Your task to perform on an android device: Install the Amazon app Image 0: 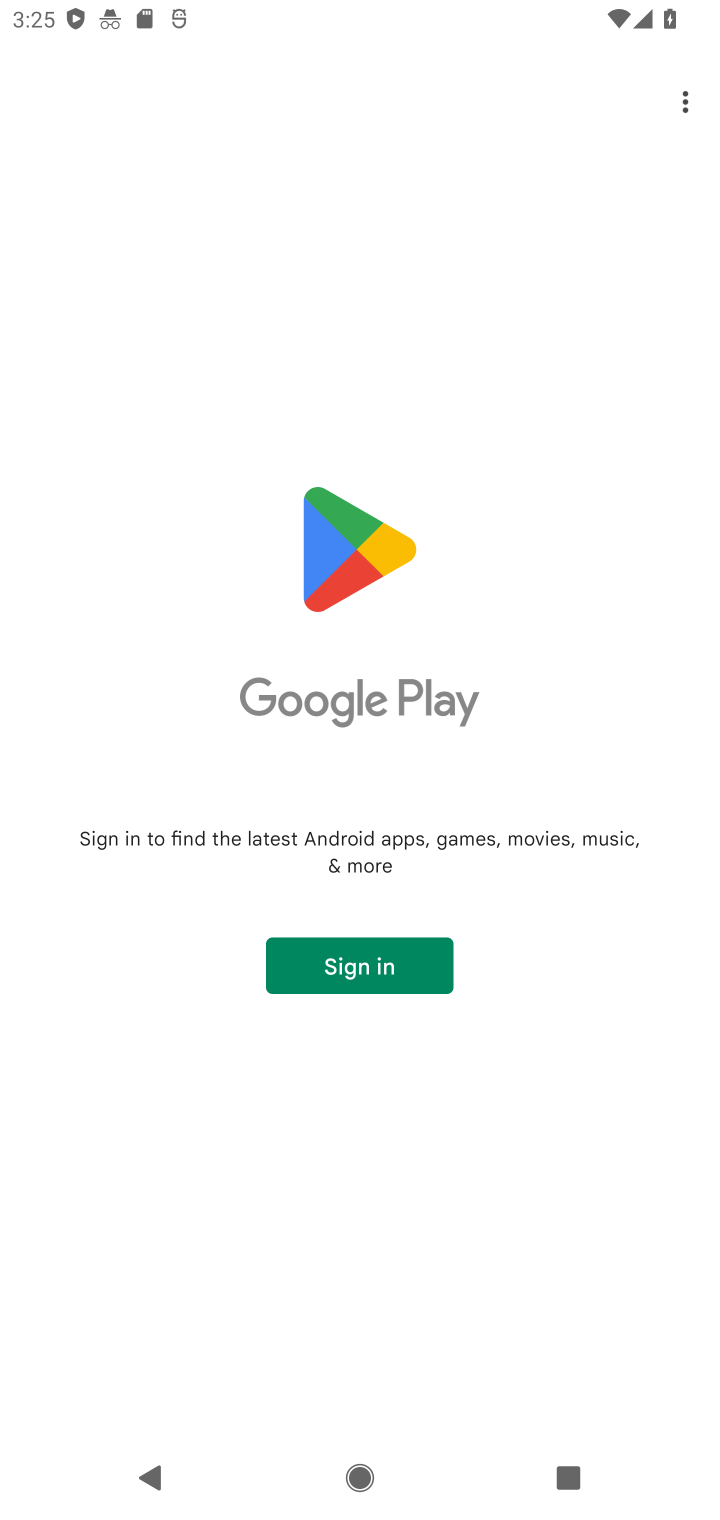
Step 0: press home button
Your task to perform on an android device: Install the Amazon app Image 1: 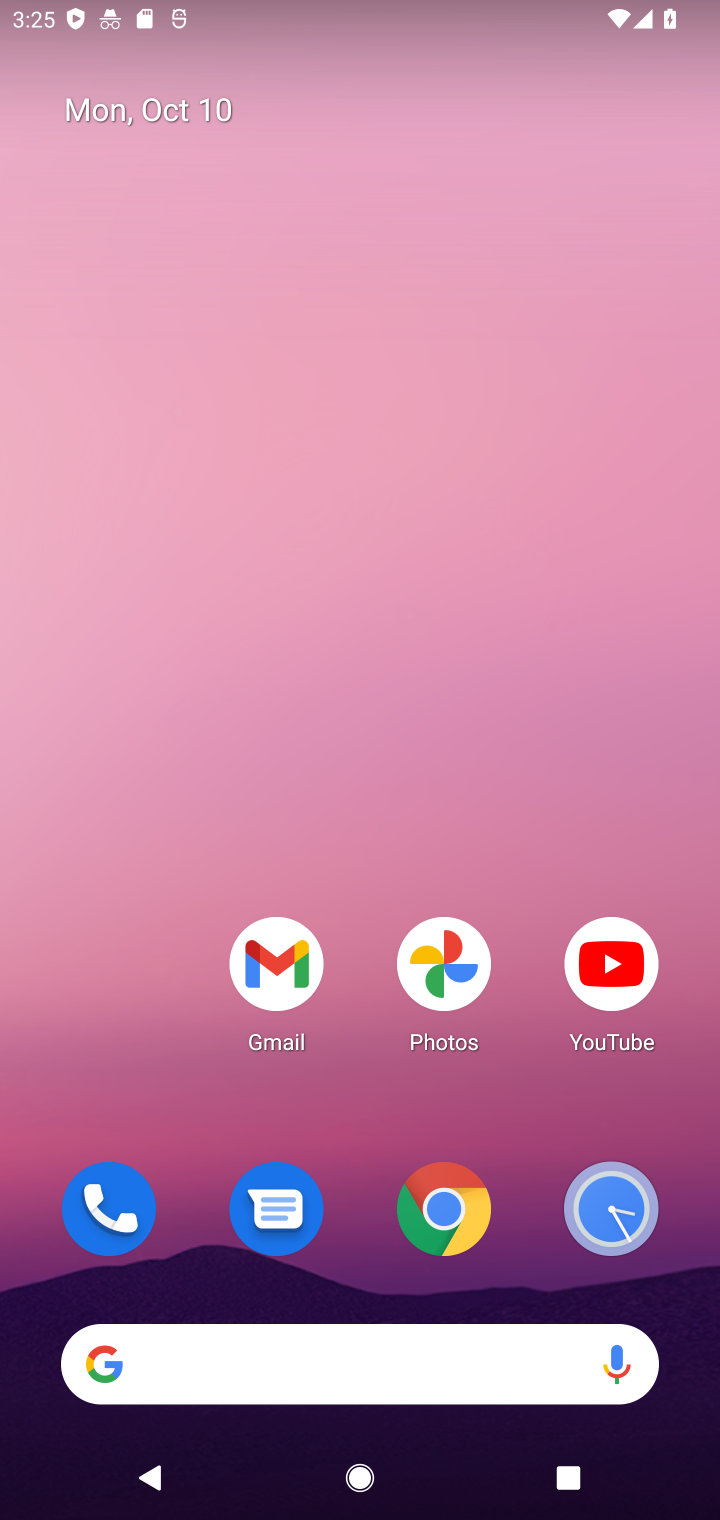
Step 1: drag from (401, 1285) to (193, 189)
Your task to perform on an android device: Install the Amazon app Image 2: 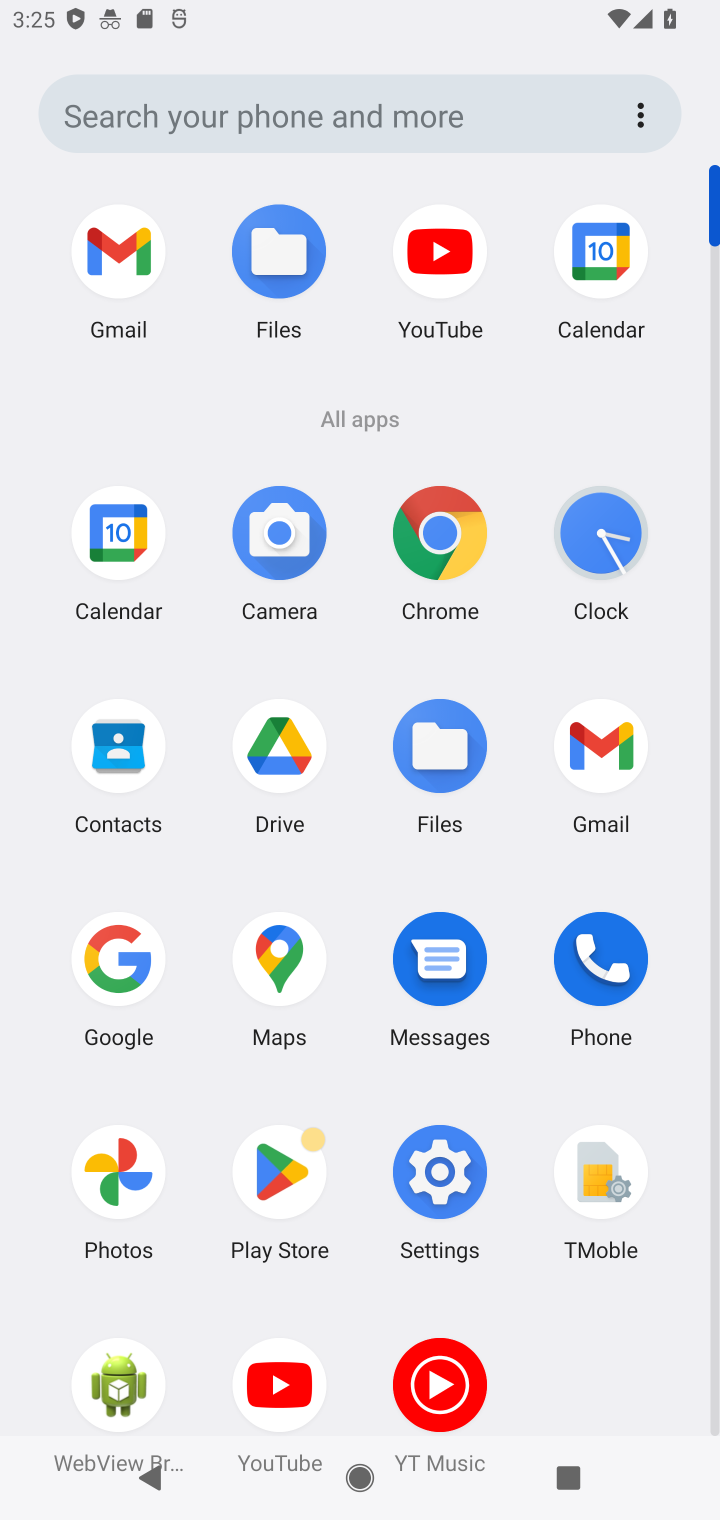
Step 2: click (290, 1163)
Your task to perform on an android device: Install the Amazon app Image 3: 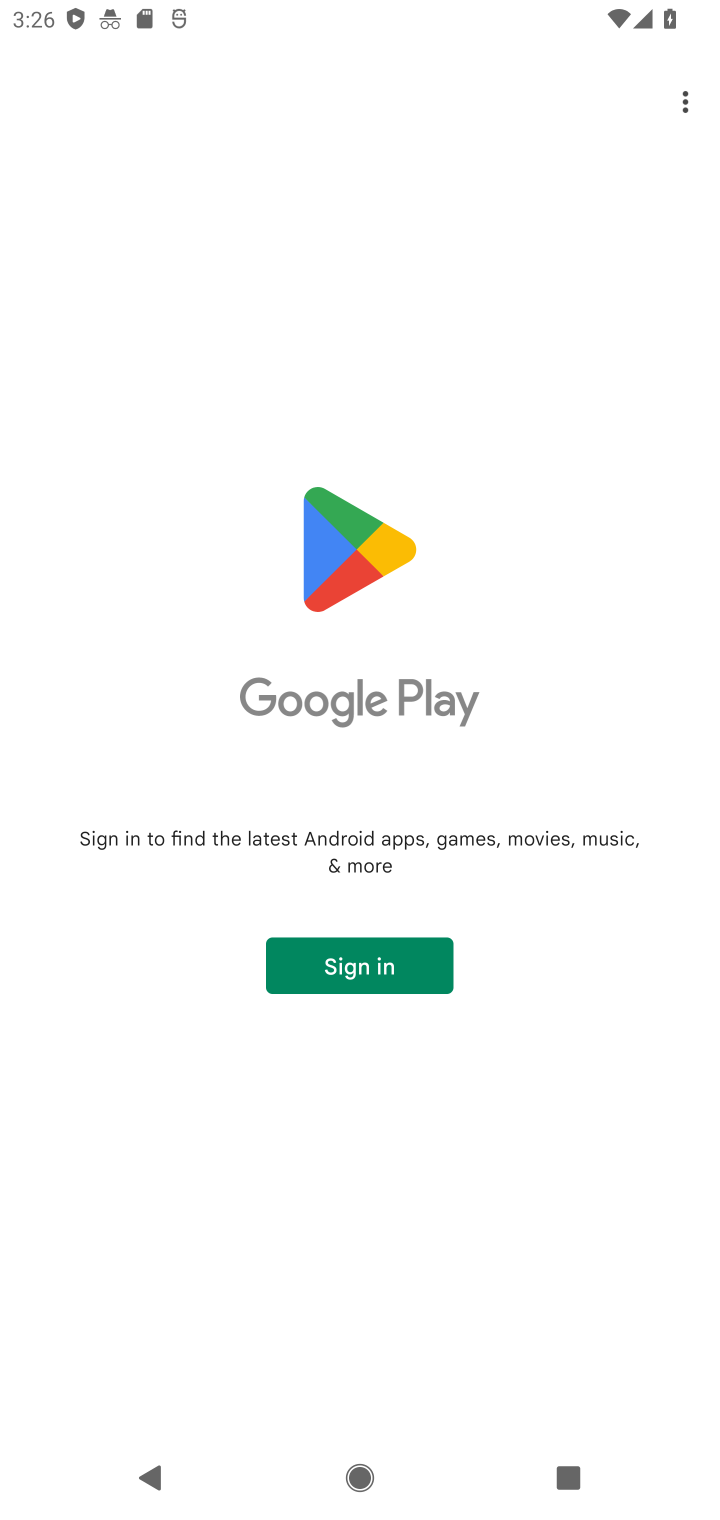
Step 3: task complete